Your task to perform on an android device: Open Youtube and go to the subscriptions tab Image 0: 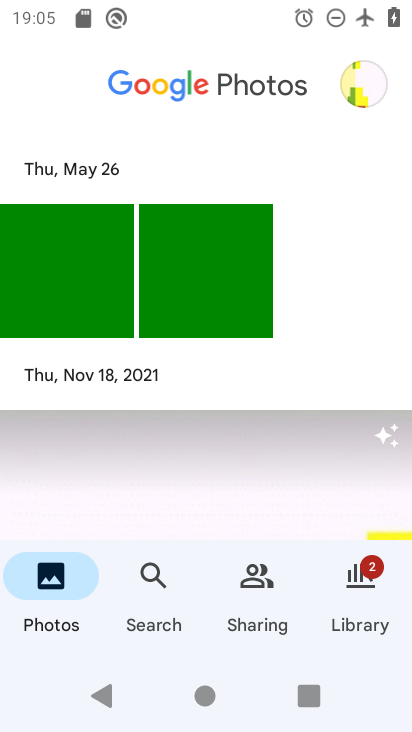
Step 0: press home button
Your task to perform on an android device: Open Youtube and go to the subscriptions tab Image 1: 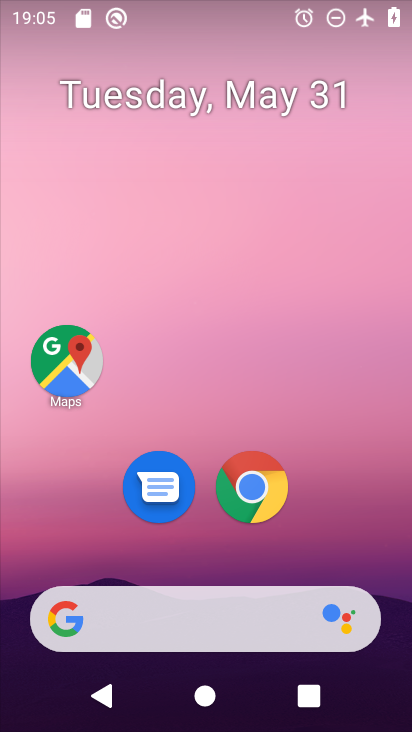
Step 1: drag from (317, 530) to (202, 144)
Your task to perform on an android device: Open Youtube and go to the subscriptions tab Image 2: 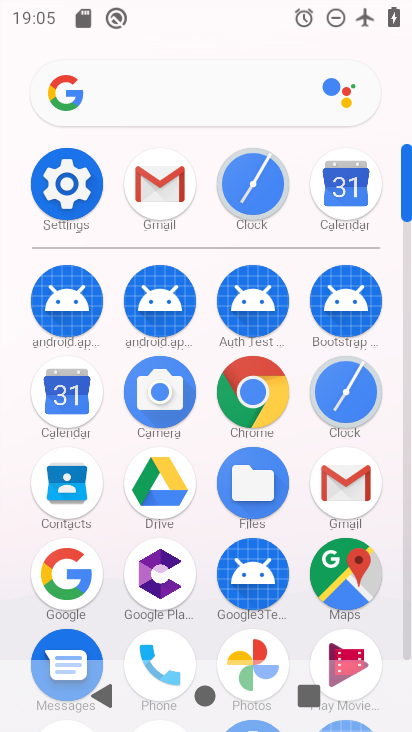
Step 2: drag from (116, 593) to (81, 144)
Your task to perform on an android device: Open Youtube and go to the subscriptions tab Image 3: 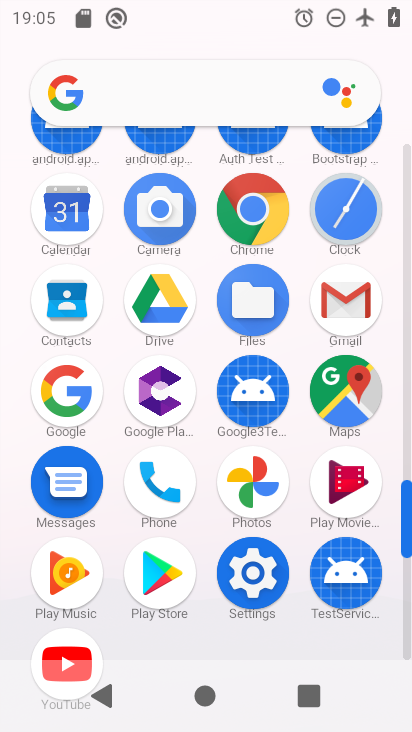
Step 3: click (71, 640)
Your task to perform on an android device: Open Youtube and go to the subscriptions tab Image 4: 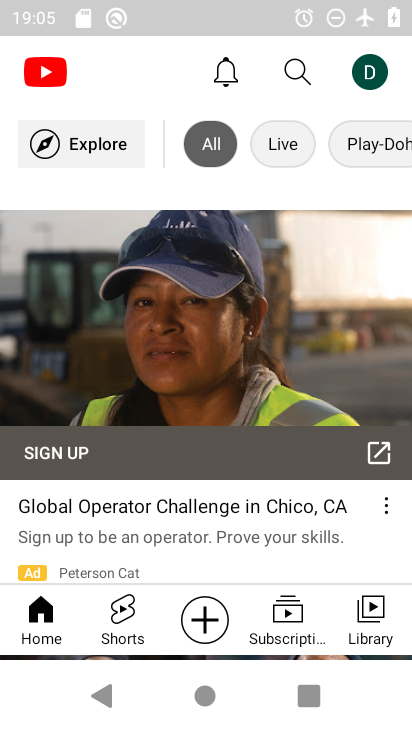
Step 4: click (285, 625)
Your task to perform on an android device: Open Youtube and go to the subscriptions tab Image 5: 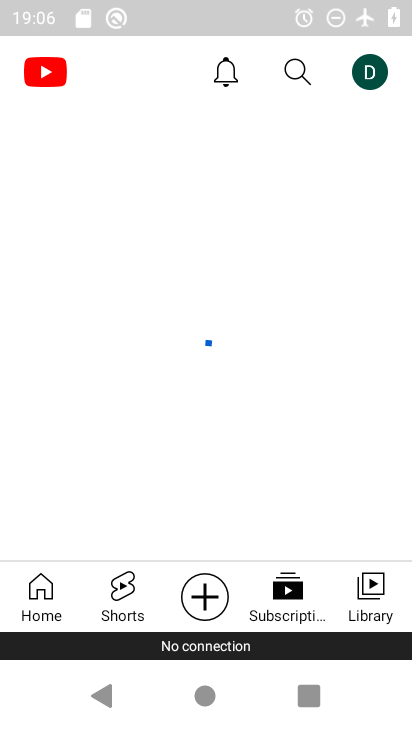
Step 5: task complete